Your task to perform on an android device: allow notifications from all sites in the chrome app Image 0: 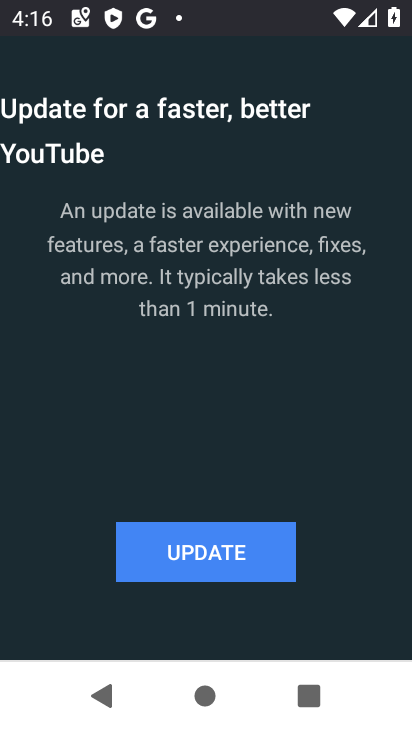
Step 0: press home button
Your task to perform on an android device: allow notifications from all sites in the chrome app Image 1: 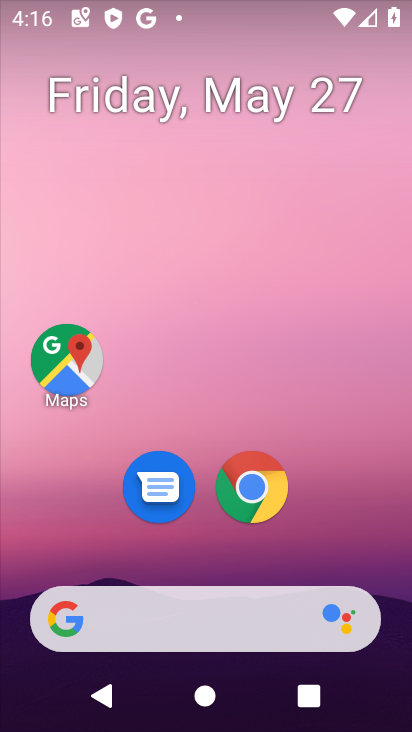
Step 1: click (252, 496)
Your task to perform on an android device: allow notifications from all sites in the chrome app Image 2: 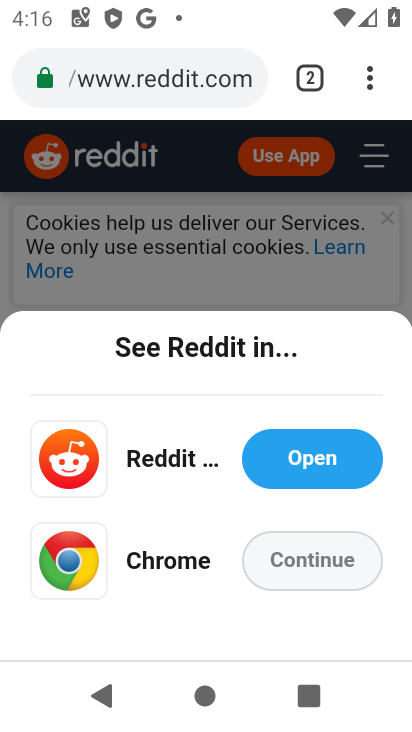
Step 2: drag from (375, 75) to (163, 558)
Your task to perform on an android device: allow notifications from all sites in the chrome app Image 3: 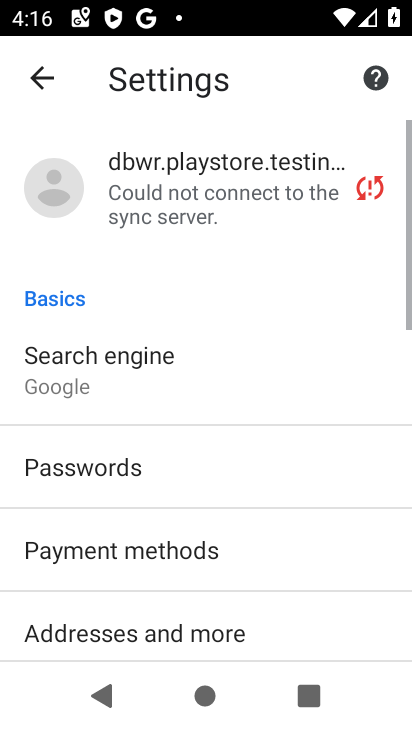
Step 3: drag from (176, 606) to (274, 50)
Your task to perform on an android device: allow notifications from all sites in the chrome app Image 4: 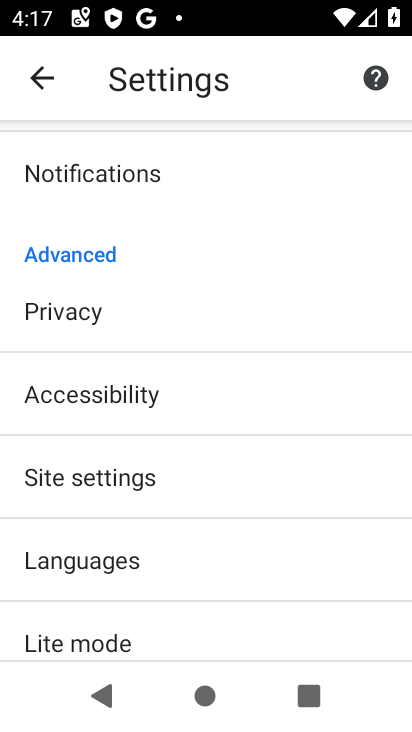
Step 4: click (130, 185)
Your task to perform on an android device: allow notifications from all sites in the chrome app Image 5: 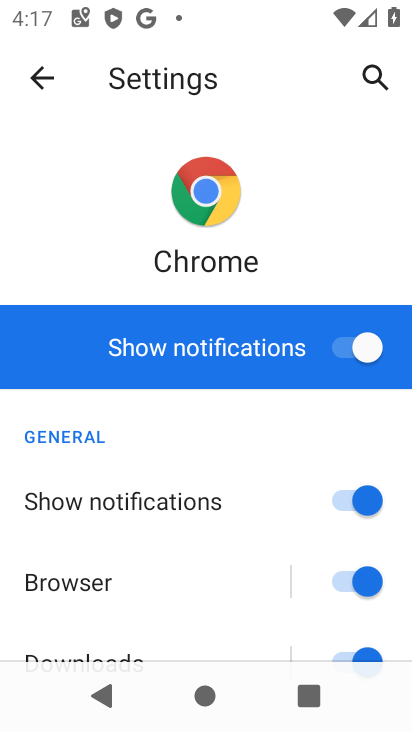
Step 5: task complete